Your task to perform on an android device: Open display settings Image 0: 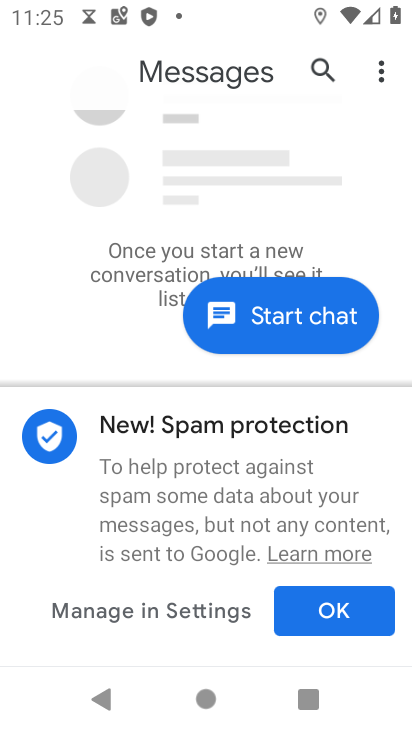
Step 0: press home button
Your task to perform on an android device: Open display settings Image 1: 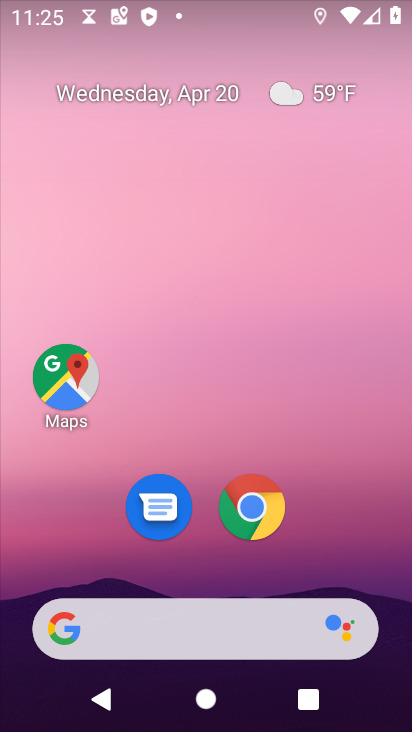
Step 1: drag from (240, 655) to (324, 122)
Your task to perform on an android device: Open display settings Image 2: 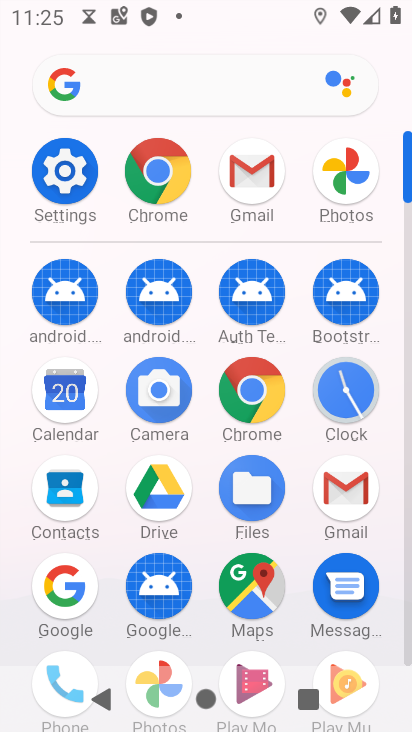
Step 2: click (78, 175)
Your task to perform on an android device: Open display settings Image 3: 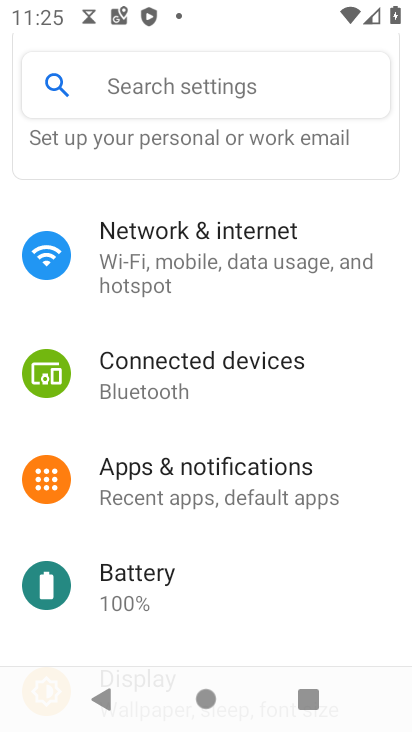
Step 3: drag from (128, 497) to (186, 340)
Your task to perform on an android device: Open display settings Image 4: 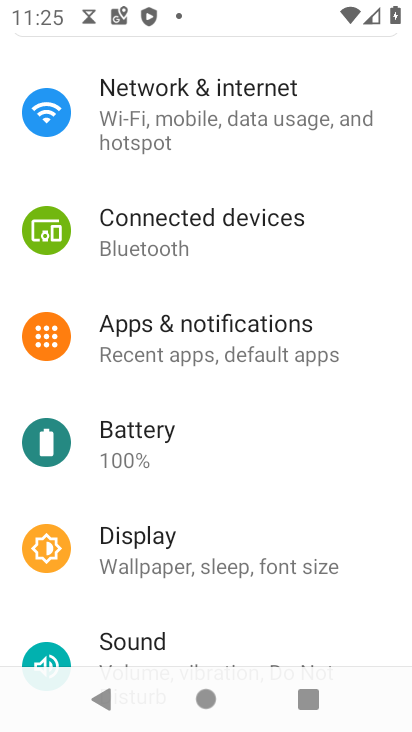
Step 4: click (135, 532)
Your task to perform on an android device: Open display settings Image 5: 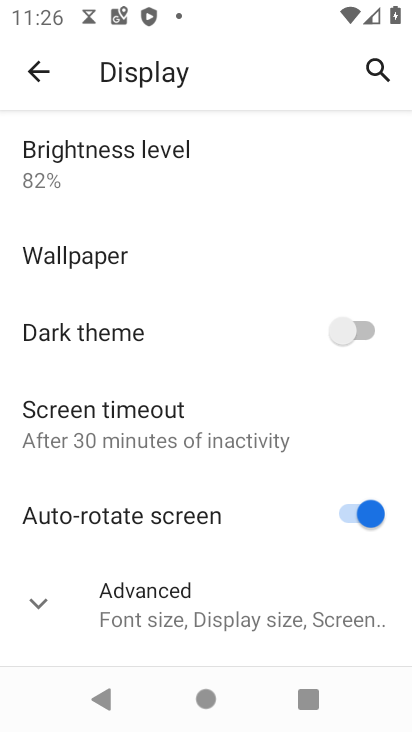
Step 5: task complete